Your task to perform on an android device: Go to settings Image 0: 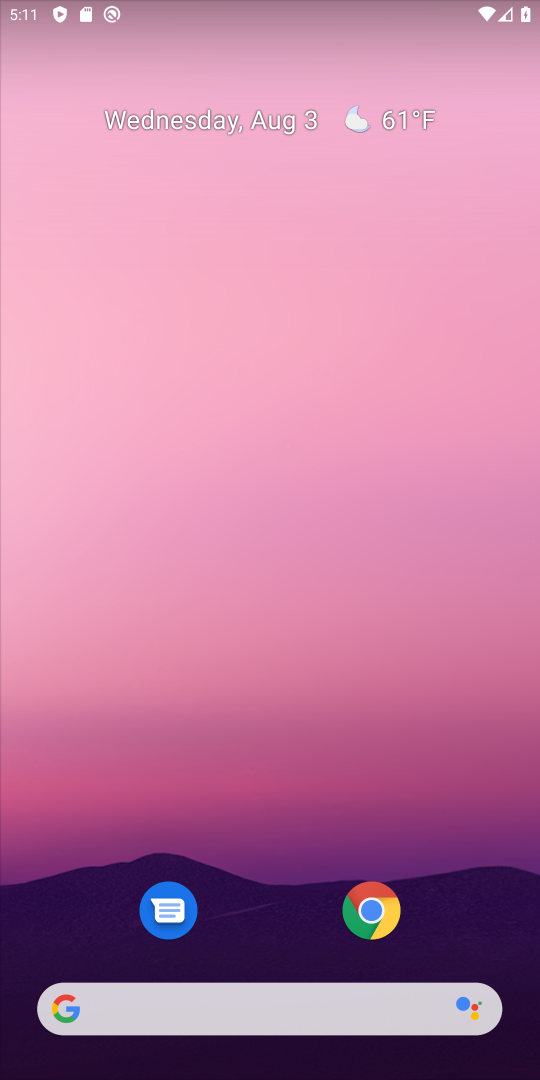
Step 0: drag from (270, 740) to (392, 121)
Your task to perform on an android device: Go to settings Image 1: 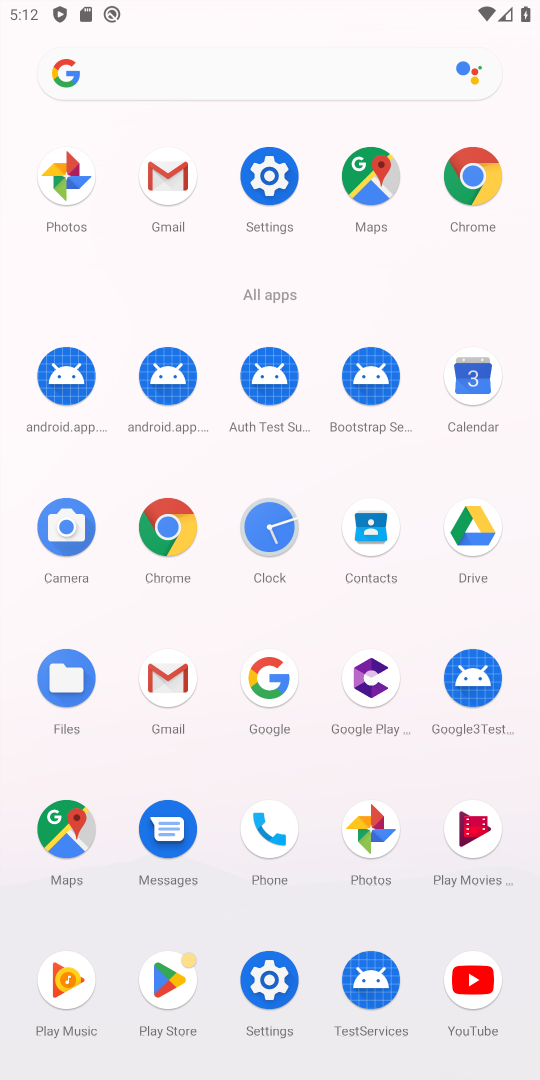
Step 1: click (263, 952)
Your task to perform on an android device: Go to settings Image 2: 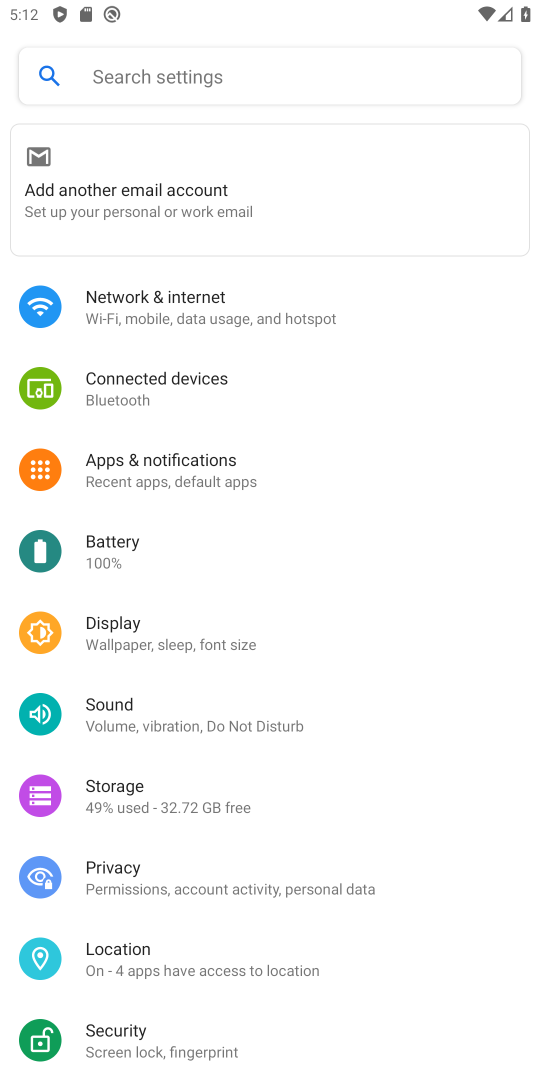
Step 2: task complete